Your task to perform on an android device: turn off airplane mode Image 0: 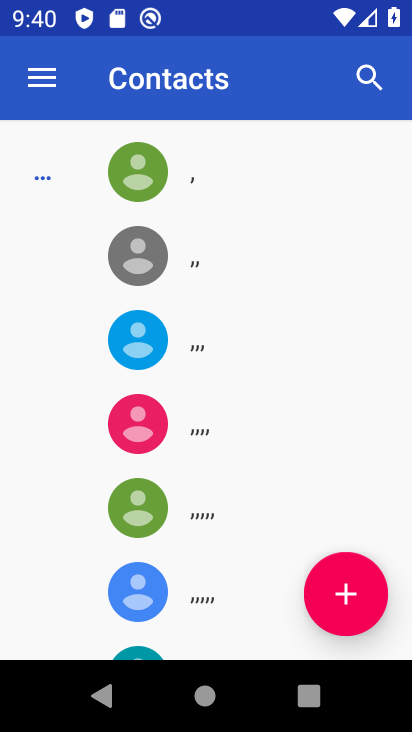
Step 0: press home button
Your task to perform on an android device: turn off airplane mode Image 1: 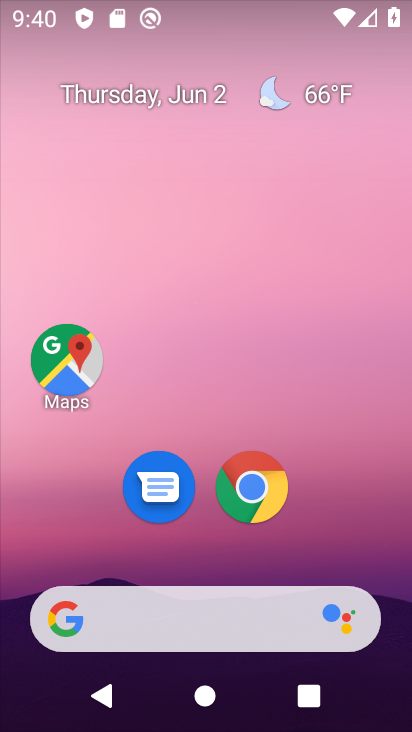
Step 1: drag from (226, 725) to (212, 47)
Your task to perform on an android device: turn off airplane mode Image 2: 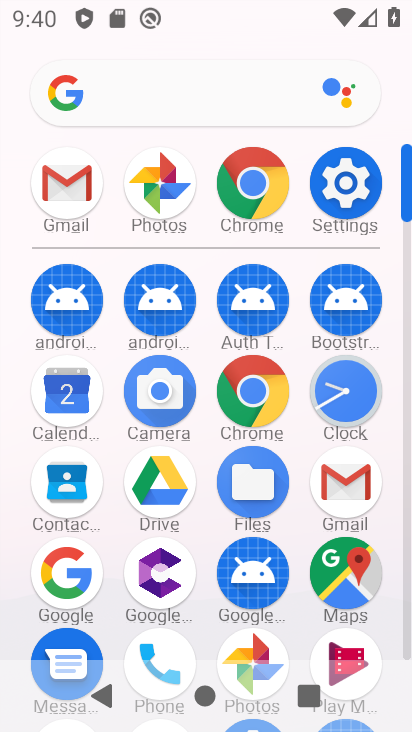
Step 2: click (349, 197)
Your task to perform on an android device: turn off airplane mode Image 3: 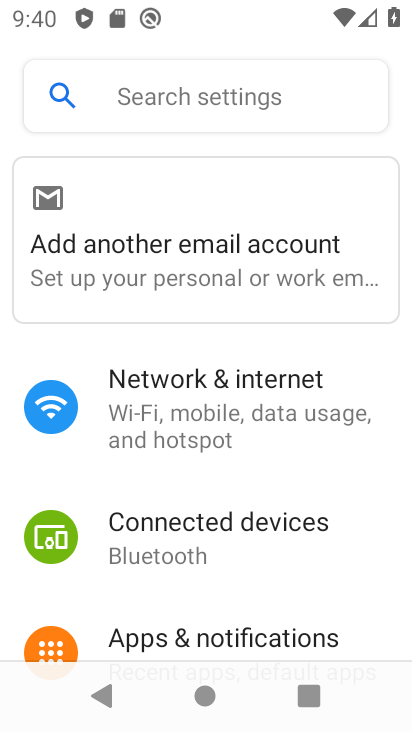
Step 3: click (176, 423)
Your task to perform on an android device: turn off airplane mode Image 4: 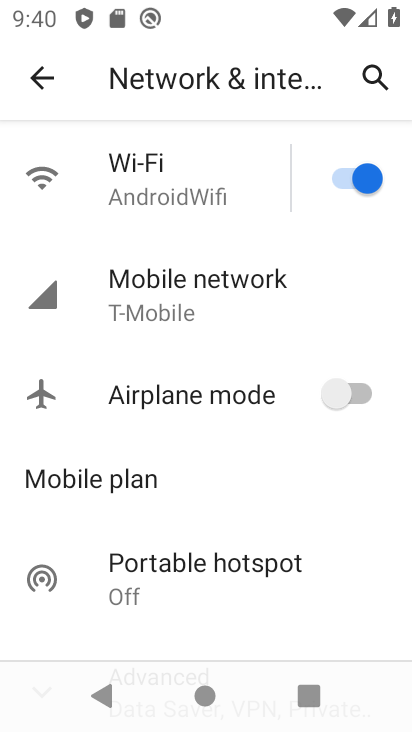
Step 4: task complete